Your task to perform on an android device: open chrome privacy settings Image 0: 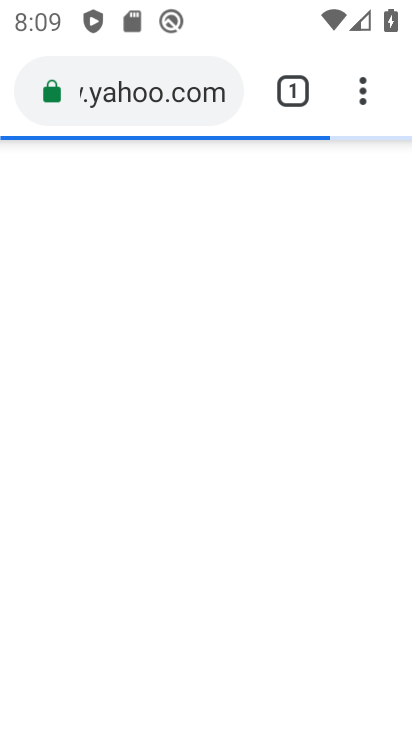
Step 0: press home button
Your task to perform on an android device: open chrome privacy settings Image 1: 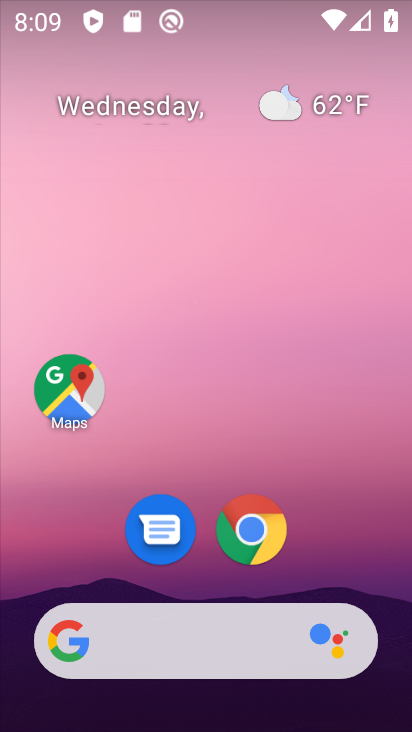
Step 1: click (244, 531)
Your task to perform on an android device: open chrome privacy settings Image 2: 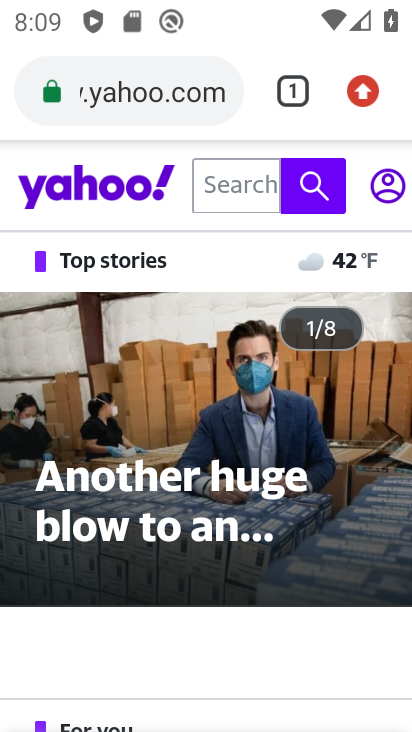
Step 2: click (356, 102)
Your task to perform on an android device: open chrome privacy settings Image 3: 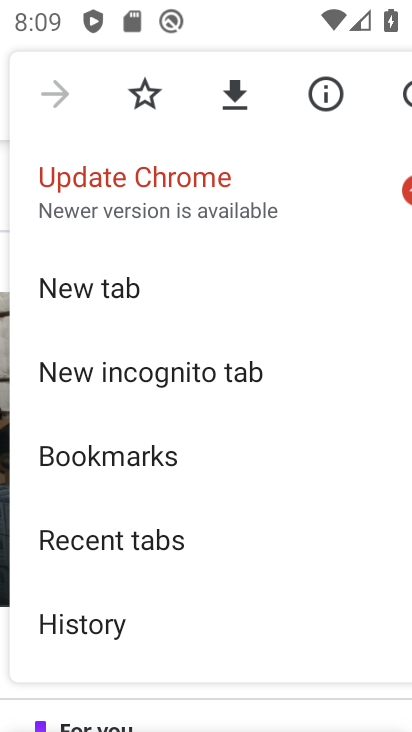
Step 3: drag from (182, 589) to (235, 163)
Your task to perform on an android device: open chrome privacy settings Image 4: 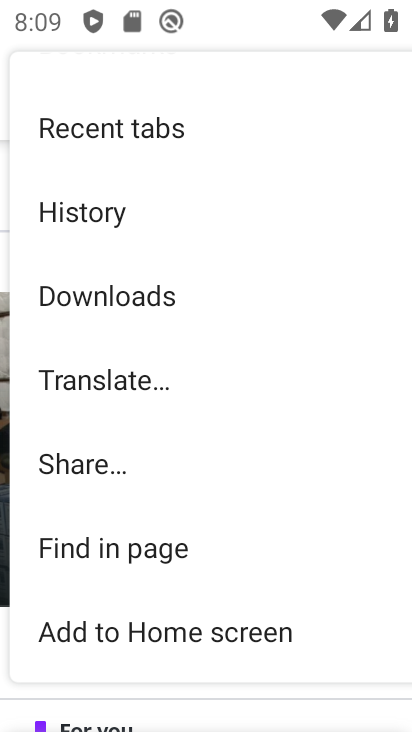
Step 4: drag from (136, 551) to (193, 254)
Your task to perform on an android device: open chrome privacy settings Image 5: 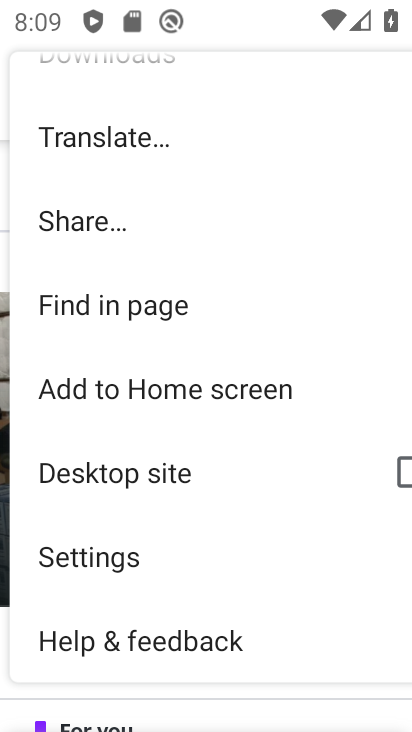
Step 5: click (109, 543)
Your task to perform on an android device: open chrome privacy settings Image 6: 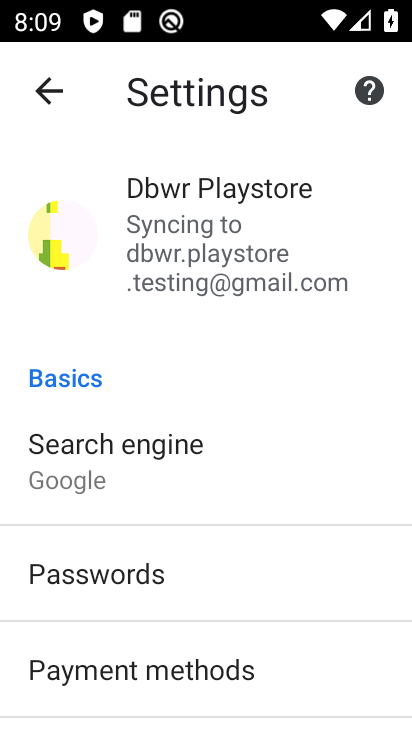
Step 6: drag from (172, 597) to (206, 252)
Your task to perform on an android device: open chrome privacy settings Image 7: 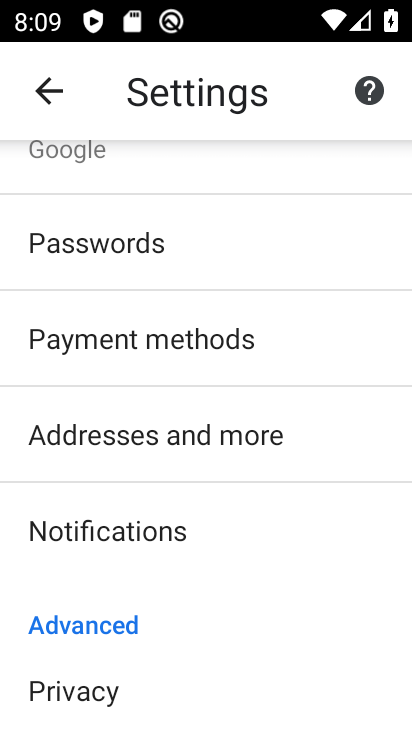
Step 7: click (113, 680)
Your task to perform on an android device: open chrome privacy settings Image 8: 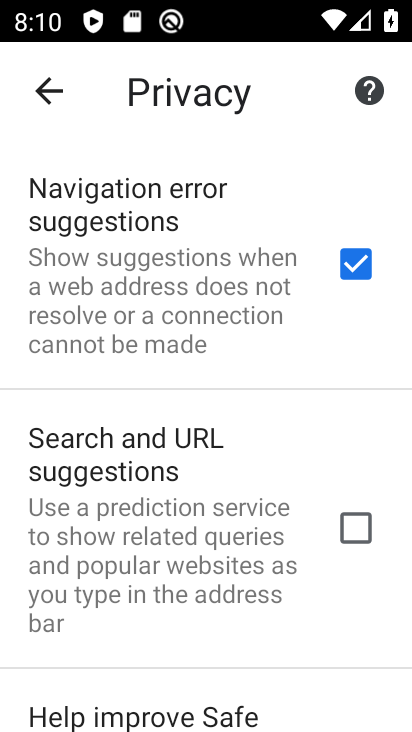
Step 8: task complete